Your task to perform on an android device: Go to network settings Image 0: 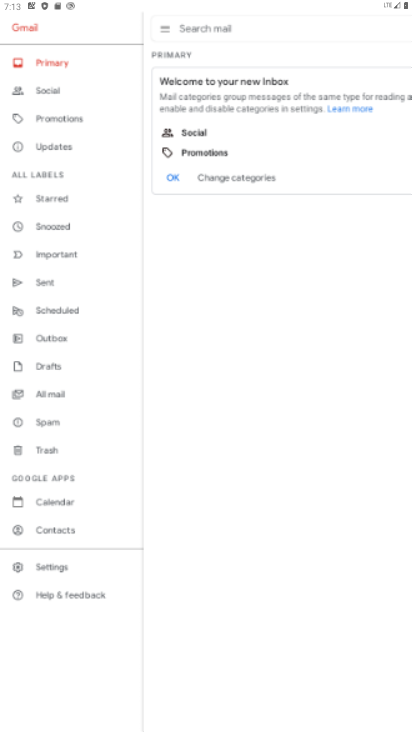
Step 0: drag from (376, 694) to (247, 82)
Your task to perform on an android device: Go to network settings Image 1: 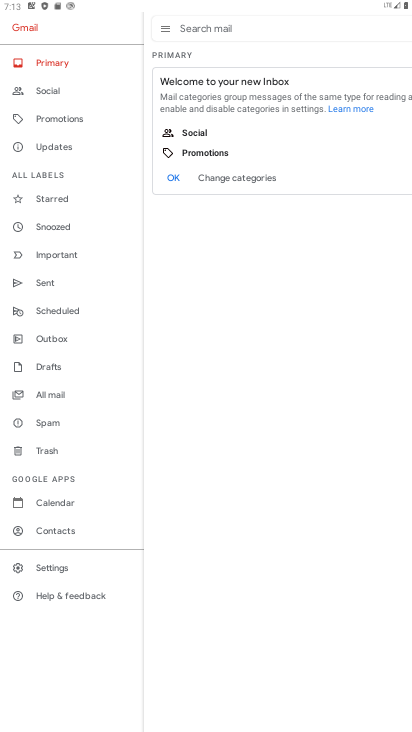
Step 1: press home button
Your task to perform on an android device: Go to network settings Image 2: 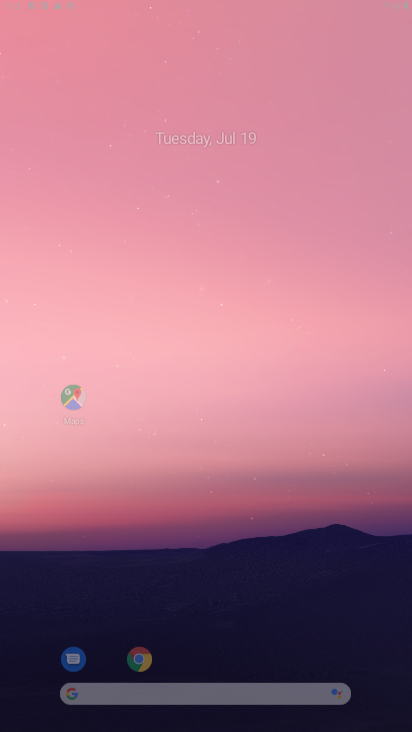
Step 2: drag from (396, 710) to (288, 29)
Your task to perform on an android device: Go to network settings Image 3: 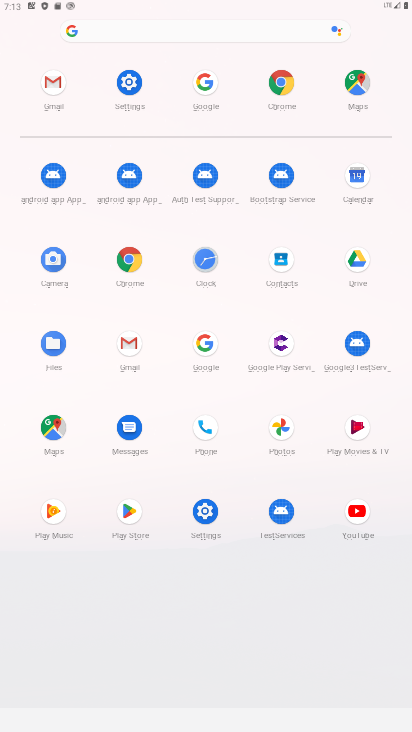
Step 3: press home button
Your task to perform on an android device: Go to network settings Image 4: 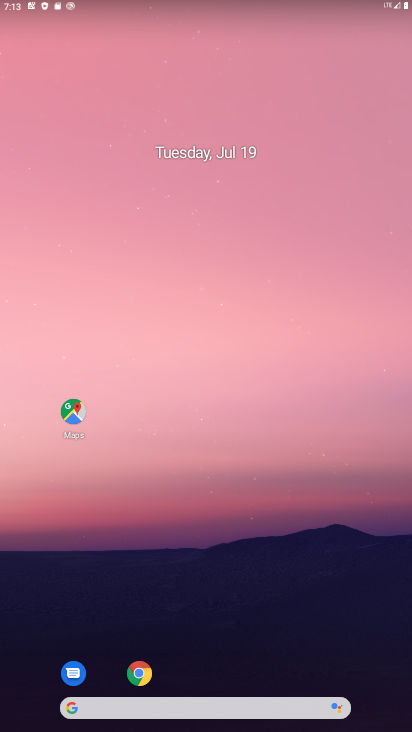
Step 4: drag from (384, 653) to (299, 51)
Your task to perform on an android device: Go to network settings Image 5: 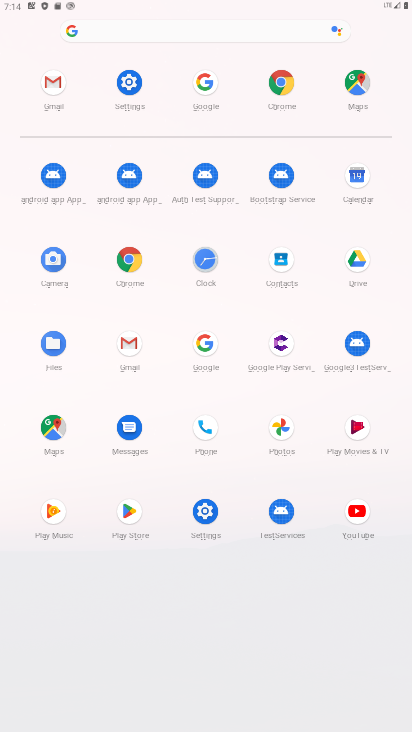
Step 5: click (193, 511)
Your task to perform on an android device: Go to network settings Image 6: 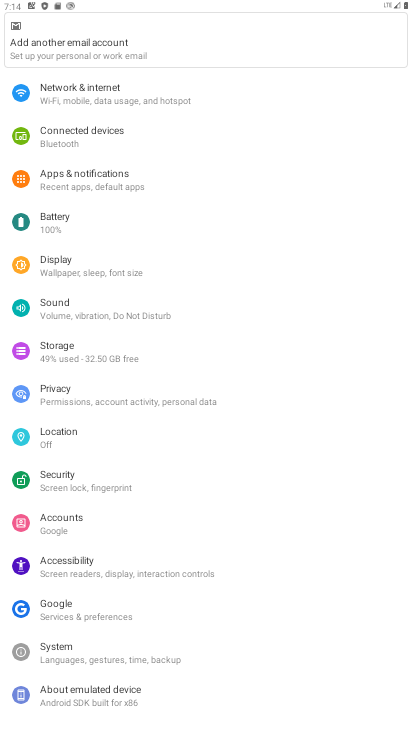
Step 6: click (110, 95)
Your task to perform on an android device: Go to network settings Image 7: 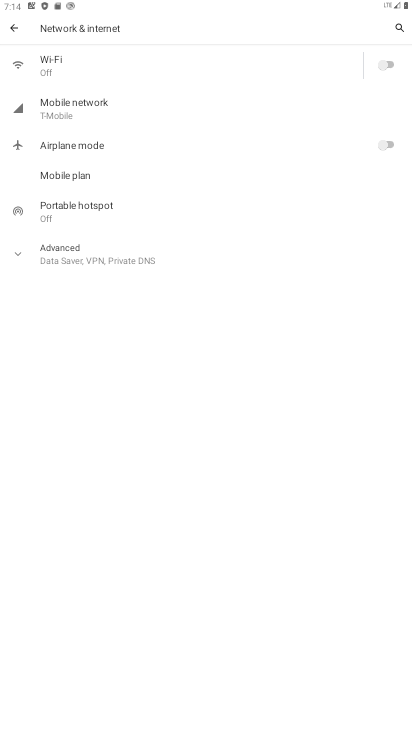
Step 7: task complete